Your task to perform on an android device: turn off smart reply in the gmail app Image 0: 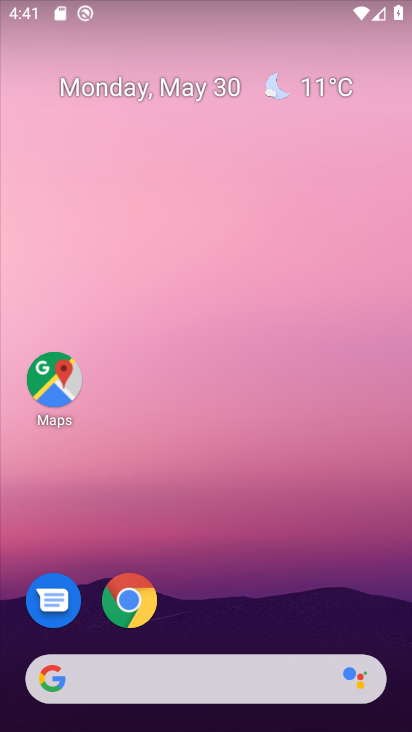
Step 0: drag from (261, 540) to (294, 74)
Your task to perform on an android device: turn off smart reply in the gmail app Image 1: 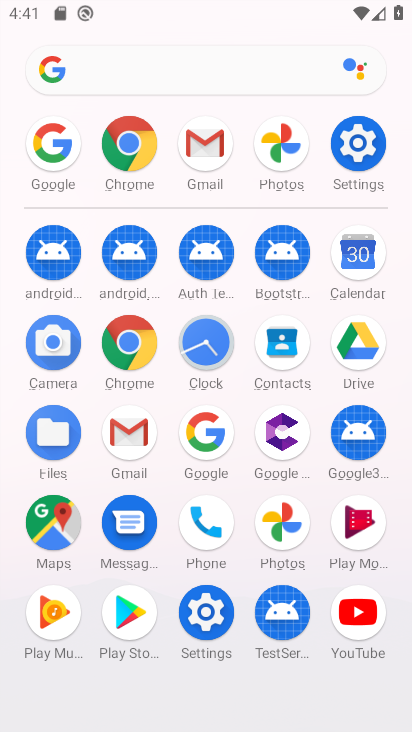
Step 1: click (203, 149)
Your task to perform on an android device: turn off smart reply in the gmail app Image 2: 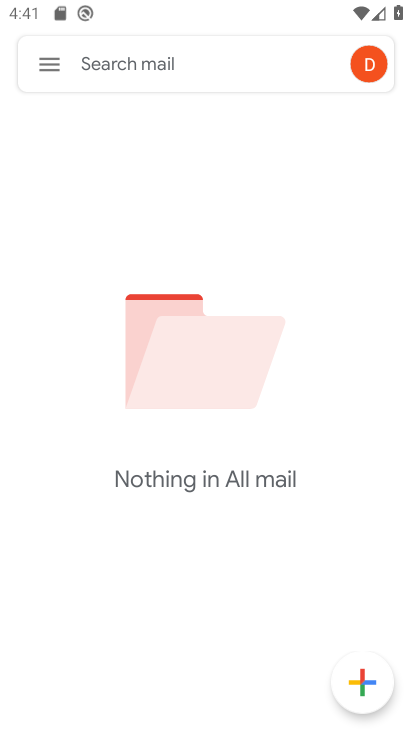
Step 2: click (48, 67)
Your task to perform on an android device: turn off smart reply in the gmail app Image 3: 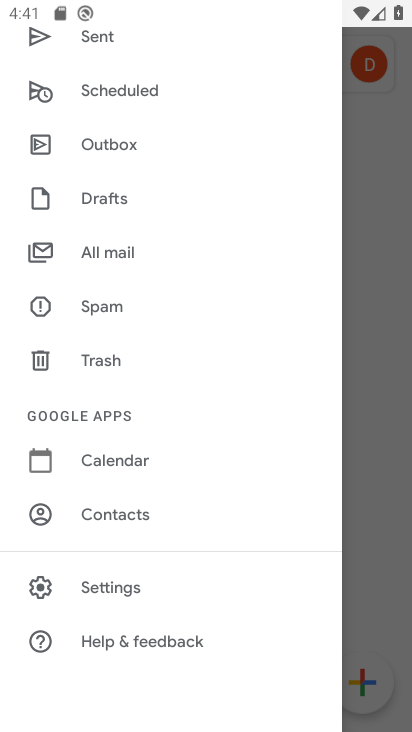
Step 3: click (119, 580)
Your task to perform on an android device: turn off smart reply in the gmail app Image 4: 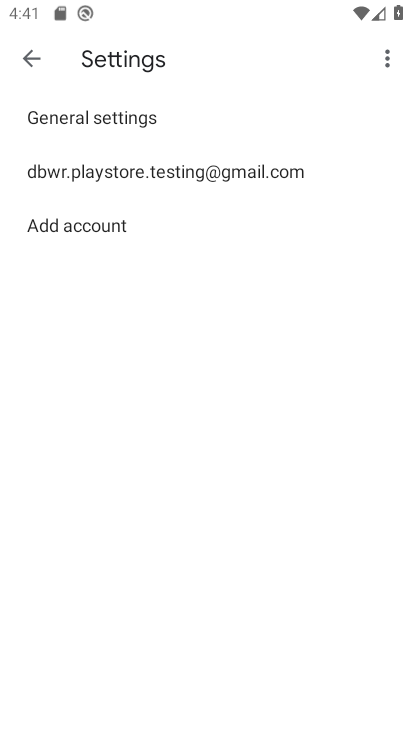
Step 4: click (164, 178)
Your task to perform on an android device: turn off smart reply in the gmail app Image 5: 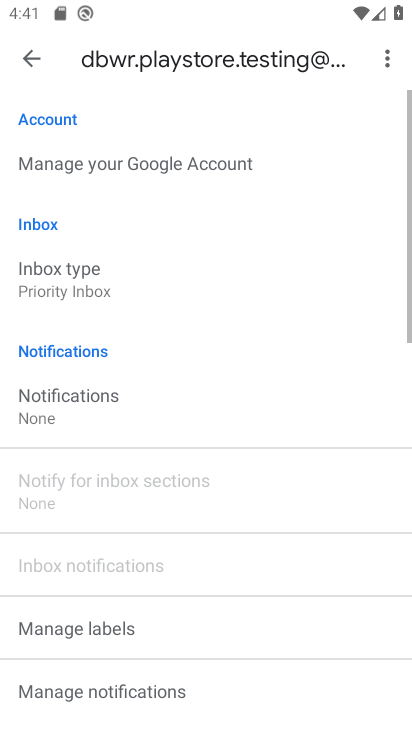
Step 5: task complete